Your task to perform on an android device: Go to Google Image 0: 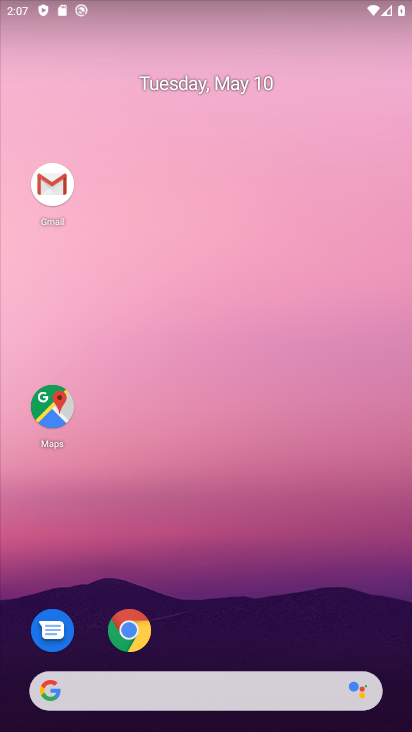
Step 0: drag from (253, 619) to (269, 178)
Your task to perform on an android device: Go to Google Image 1: 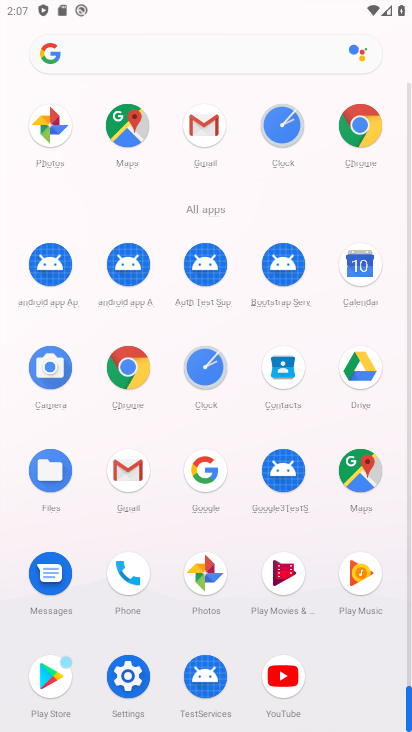
Step 1: drag from (212, 475) to (132, 225)
Your task to perform on an android device: Go to Google Image 2: 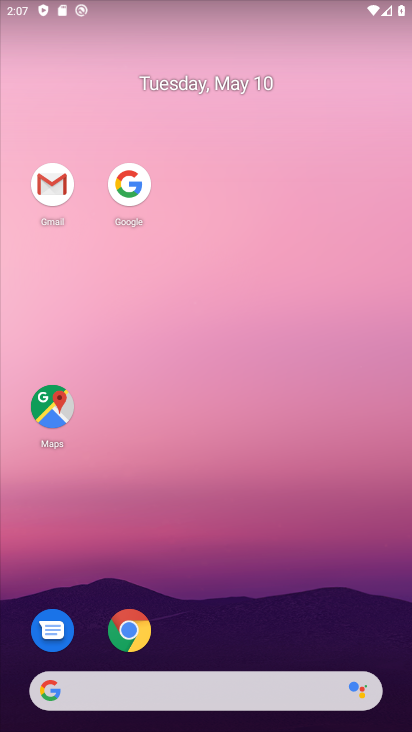
Step 2: click (123, 187)
Your task to perform on an android device: Go to Google Image 3: 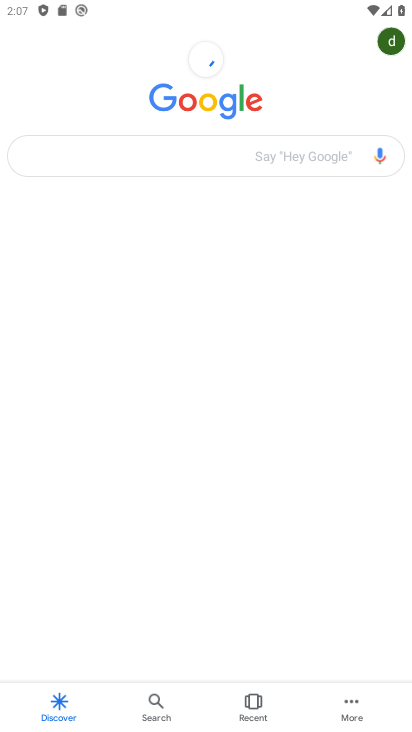
Step 3: task complete